Your task to perform on an android device: toggle sleep mode Image 0: 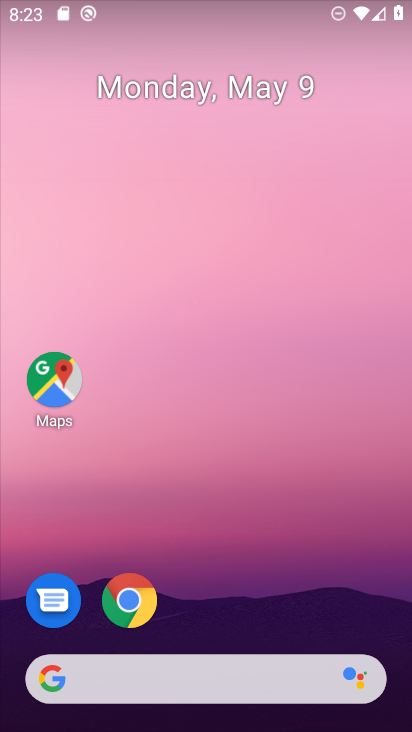
Step 0: drag from (198, 552) to (176, 22)
Your task to perform on an android device: toggle sleep mode Image 1: 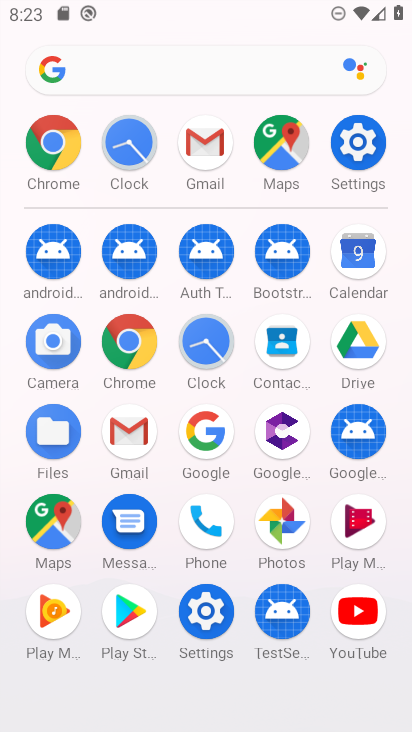
Step 1: click (205, 612)
Your task to perform on an android device: toggle sleep mode Image 2: 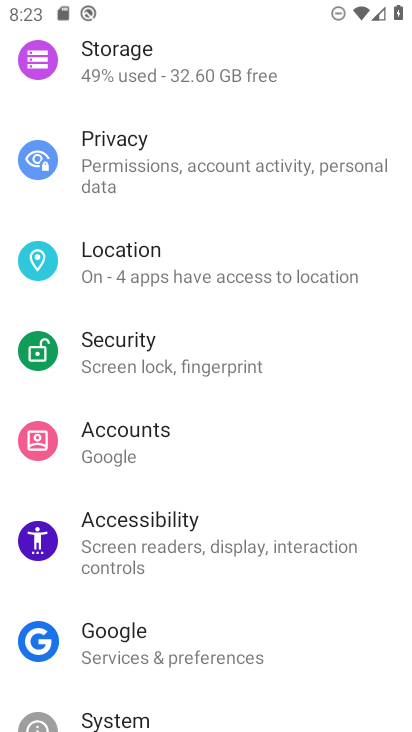
Step 2: drag from (270, 195) to (262, 543)
Your task to perform on an android device: toggle sleep mode Image 3: 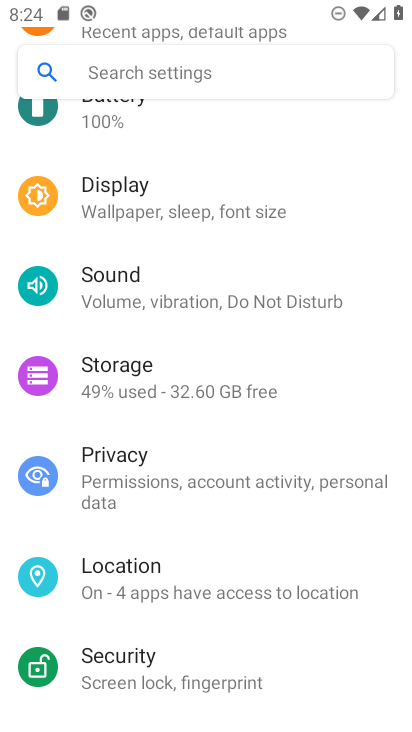
Step 3: drag from (240, 142) to (230, 519)
Your task to perform on an android device: toggle sleep mode Image 4: 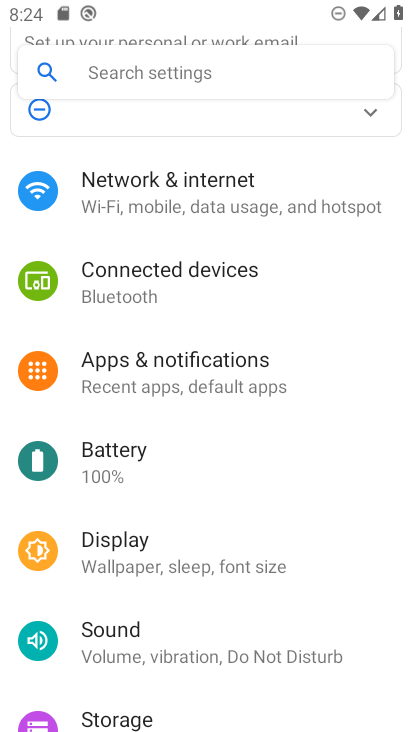
Step 4: click (195, 546)
Your task to perform on an android device: toggle sleep mode Image 5: 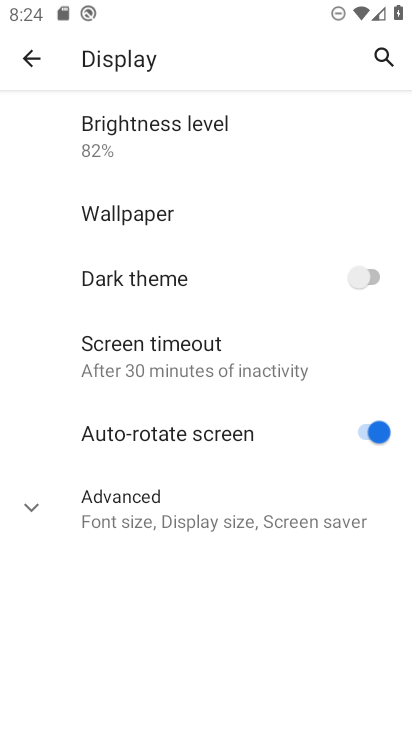
Step 5: click (40, 506)
Your task to perform on an android device: toggle sleep mode Image 6: 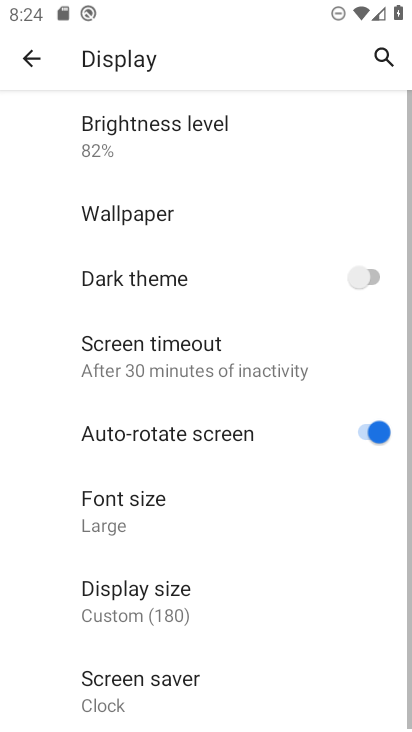
Step 6: task complete